Your task to perform on an android device: check storage Image 0: 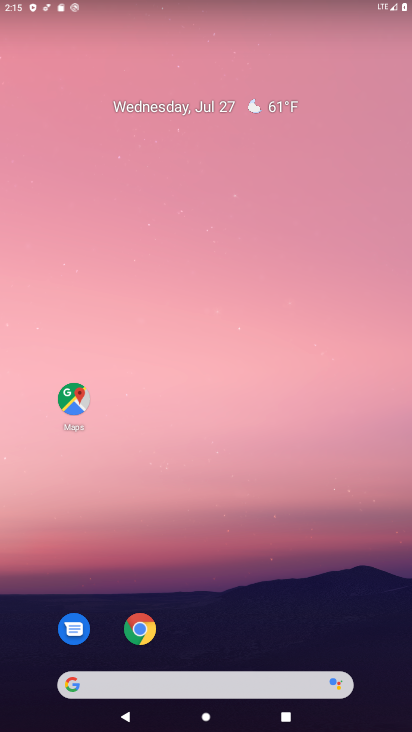
Step 0: drag from (188, 684) to (143, 180)
Your task to perform on an android device: check storage Image 1: 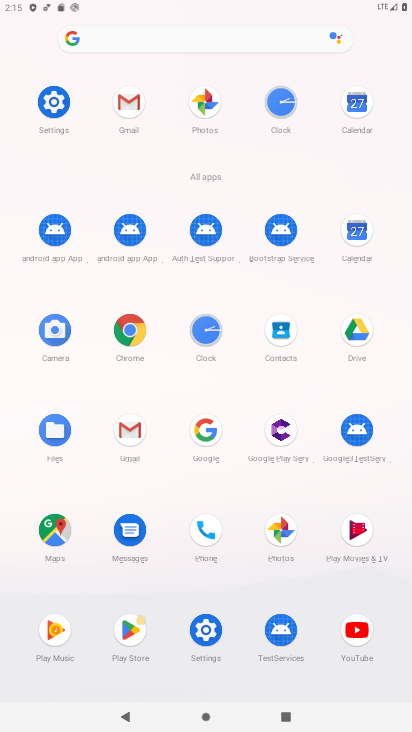
Step 1: click (206, 629)
Your task to perform on an android device: check storage Image 2: 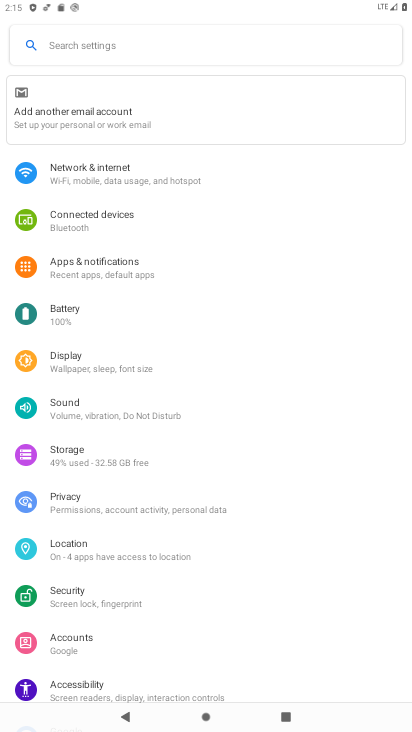
Step 2: click (80, 454)
Your task to perform on an android device: check storage Image 3: 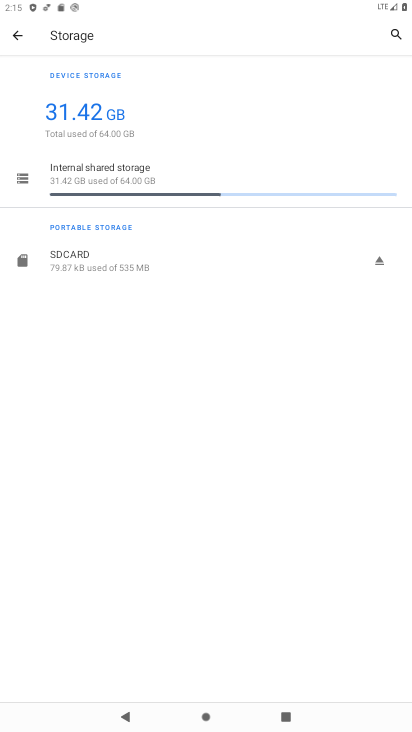
Step 3: task complete